Your task to perform on an android device: Check the weather Image 0: 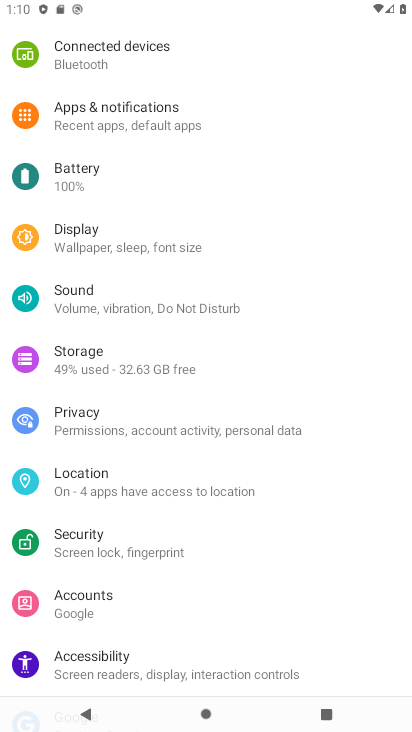
Step 0: press home button
Your task to perform on an android device: Check the weather Image 1: 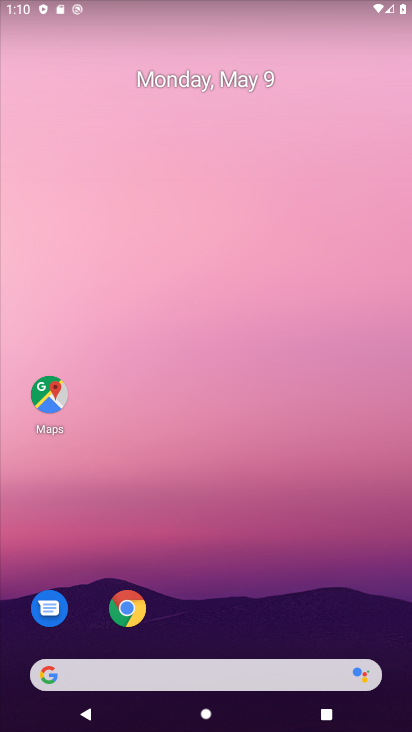
Step 1: click (113, 612)
Your task to perform on an android device: Check the weather Image 2: 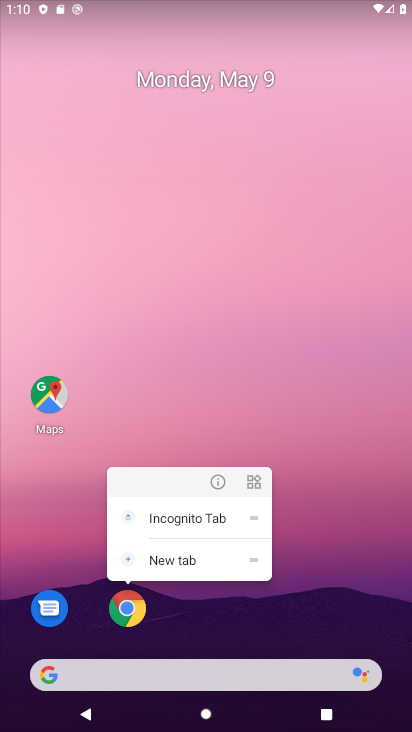
Step 2: click (115, 611)
Your task to perform on an android device: Check the weather Image 3: 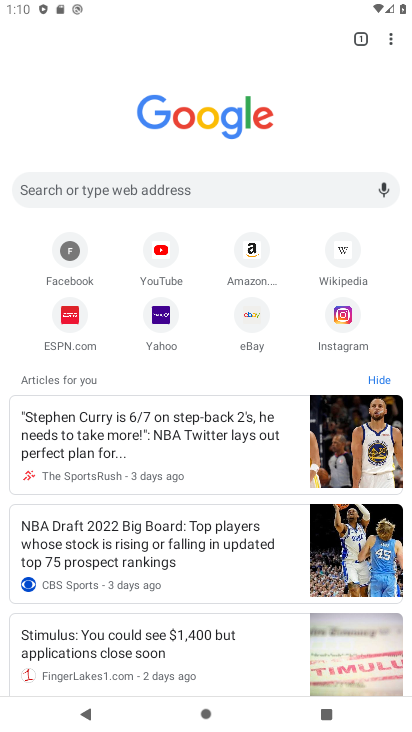
Step 3: click (185, 187)
Your task to perform on an android device: Check the weather Image 4: 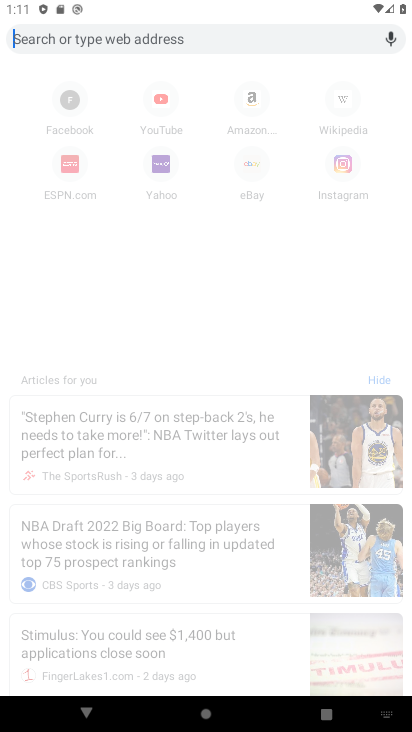
Step 4: type "weather"
Your task to perform on an android device: Check the weather Image 5: 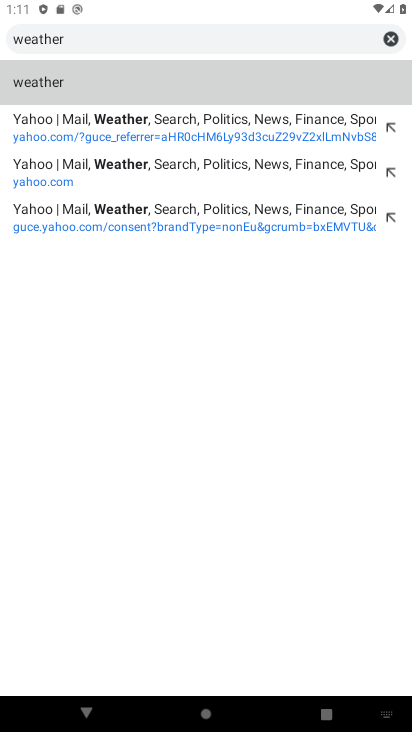
Step 5: click (22, 84)
Your task to perform on an android device: Check the weather Image 6: 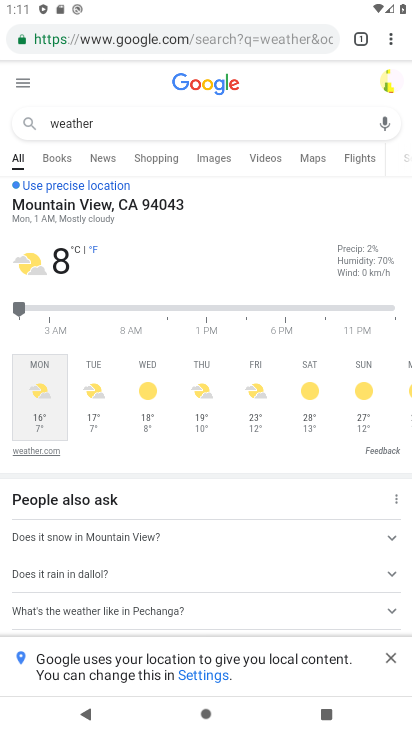
Step 6: task complete